Your task to perform on an android device: Open calendar and show me the second week of next month Image 0: 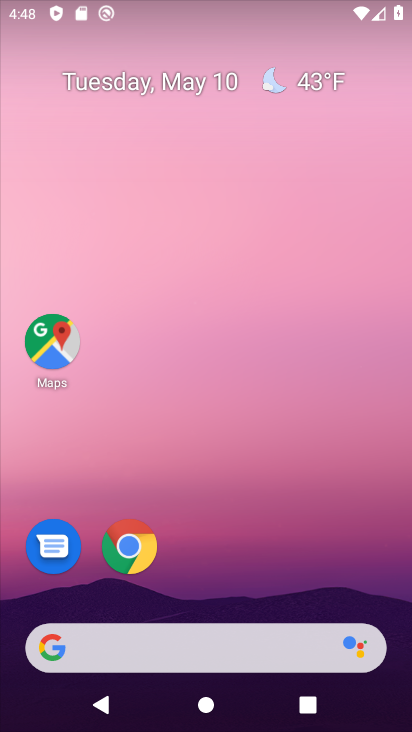
Step 0: click (171, 83)
Your task to perform on an android device: Open calendar and show me the second week of next month Image 1: 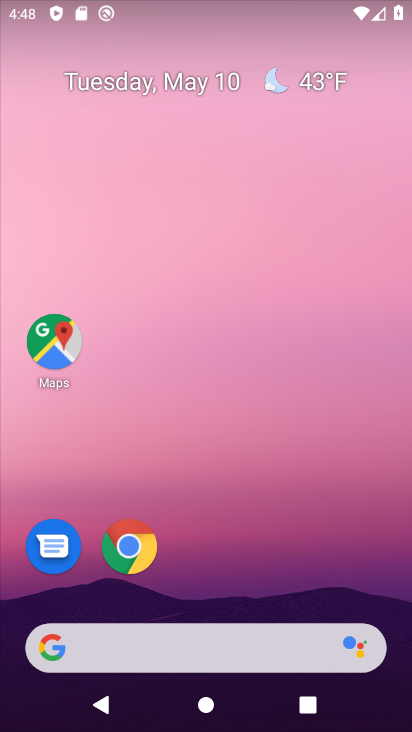
Step 1: drag from (238, 546) to (182, 128)
Your task to perform on an android device: Open calendar and show me the second week of next month Image 2: 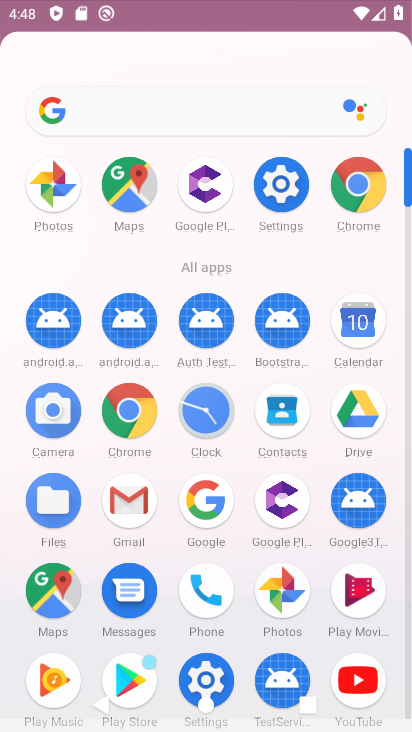
Step 2: drag from (198, 403) to (162, 25)
Your task to perform on an android device: Open calendar and show me the second week of next month Image 3: 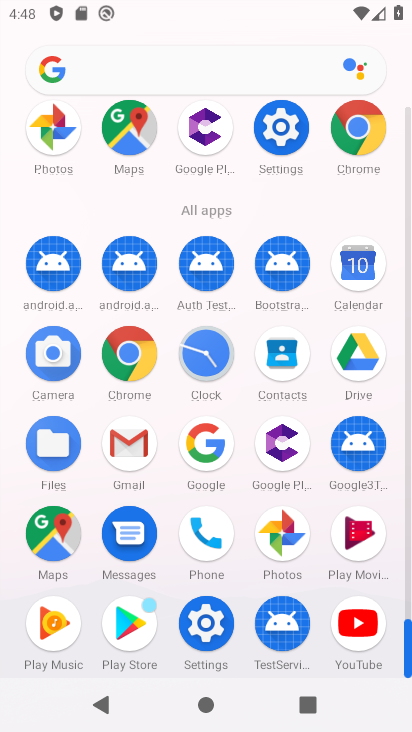
Step 3: click (366, 276)
Your task to perform on an android device: Open calendar and show me the second week of next month Image 4: 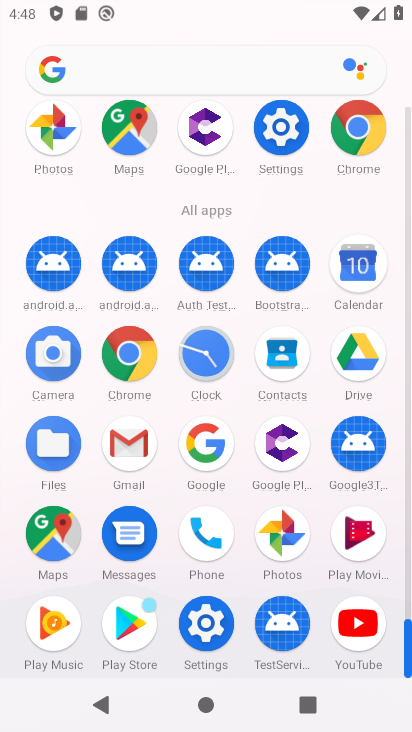
Step 4: click (359, 263)
Your task to perform on an android device: Open calendar and show me the second week of next month Image 5: 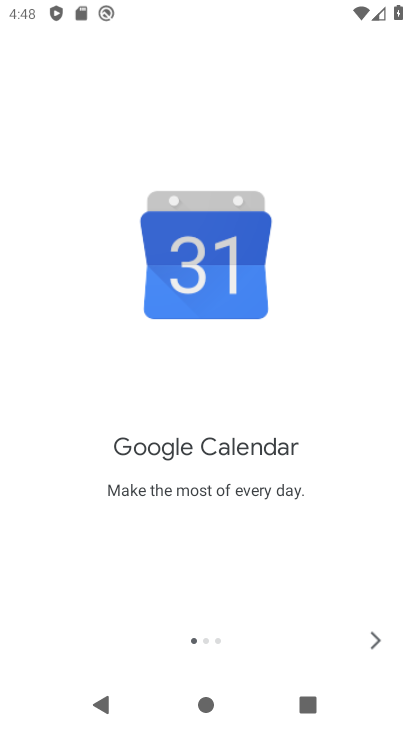
Step 5: click (378, 640)
Your task to perform on an android device: Open calendar and show me the second week of next month Image 6: 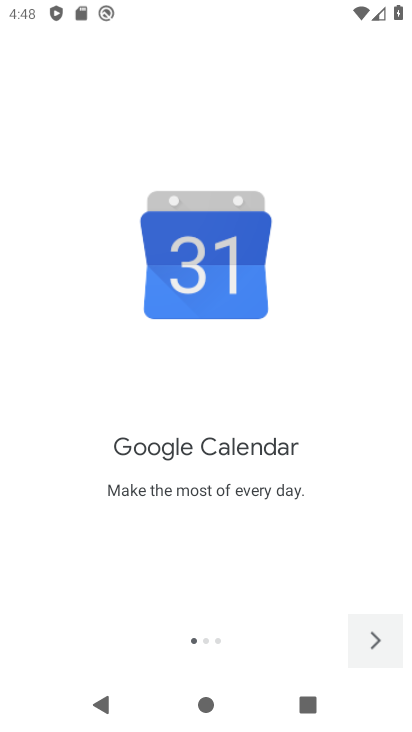
Step 6: click (375, 638)
Your task to perform on an android device: Open calendar and show me the second week of next month Image 7: 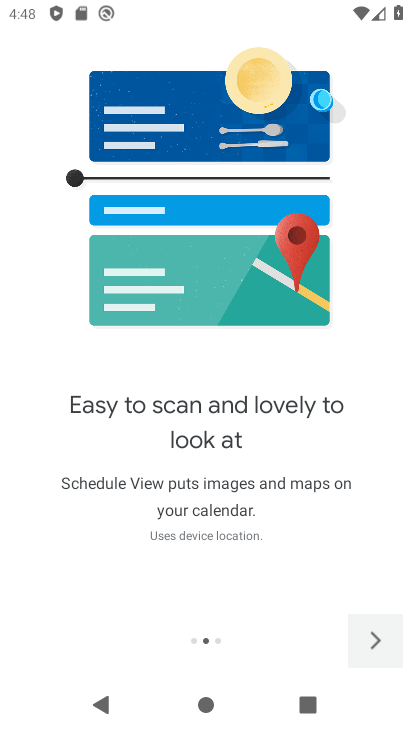
Step 7: click (374, 637)
Your task to perform on an android device: Open calendar and show me the second week of next month Image 8: 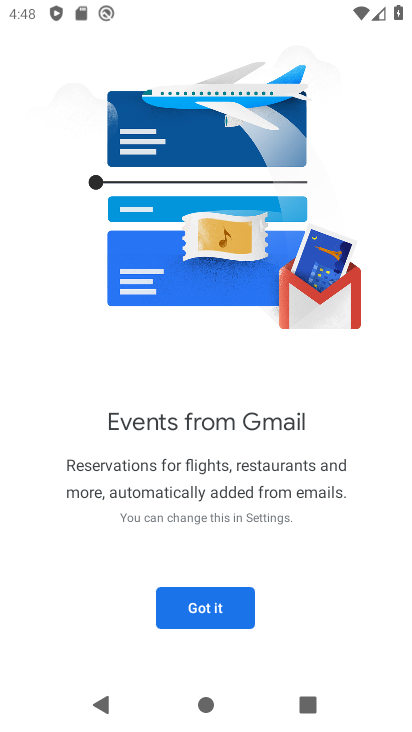
Step 8: click (380, 639)
Your task to perform on an android device: Open calendar and show me the second week of next month Image 9: 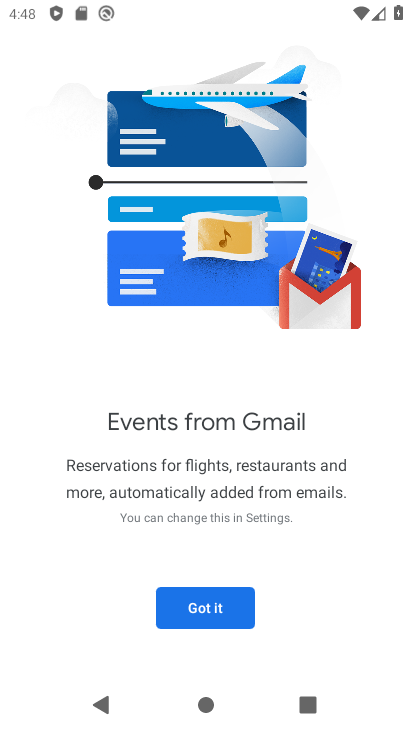
Step 9: click (380, 639)
Your task to perform on an android device: Open calendar and show me the second week of next month Image 10: 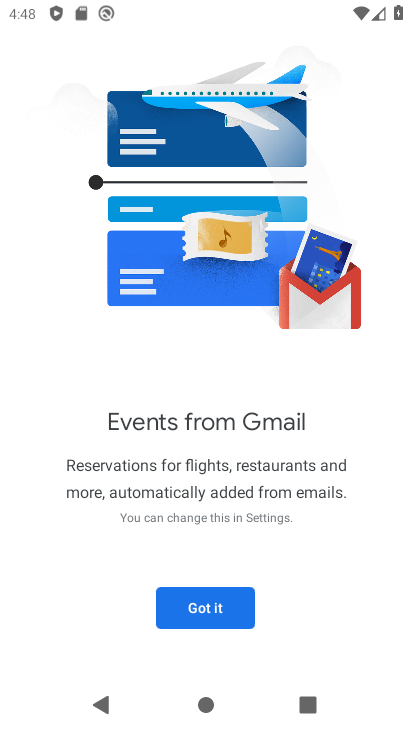
Step 10: click (198, 605)
Your task to perform on an android device: Open calendar and show me the second week of next month Image 11: 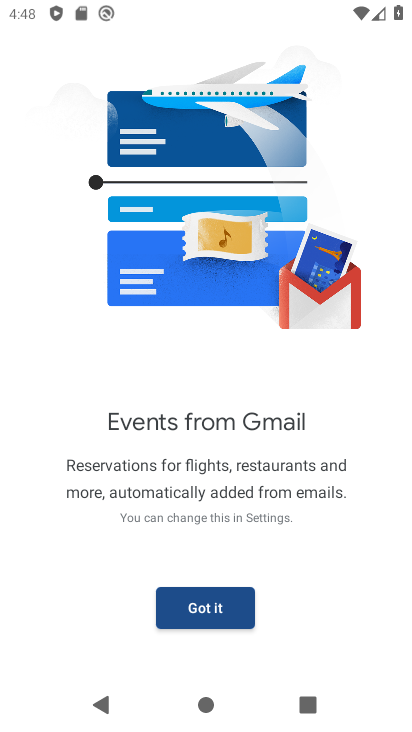
Step 11: click (195, 602)
Your task to perform on an android device: Open calendar and show me the second week of next month Image 12: 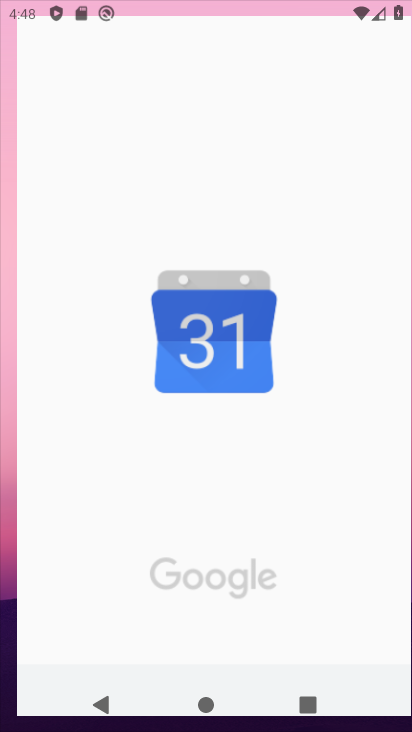
Step 12: click (200, 601)
Your task to perform on an android device: Open calendar and show me the second week of next month Image 13: 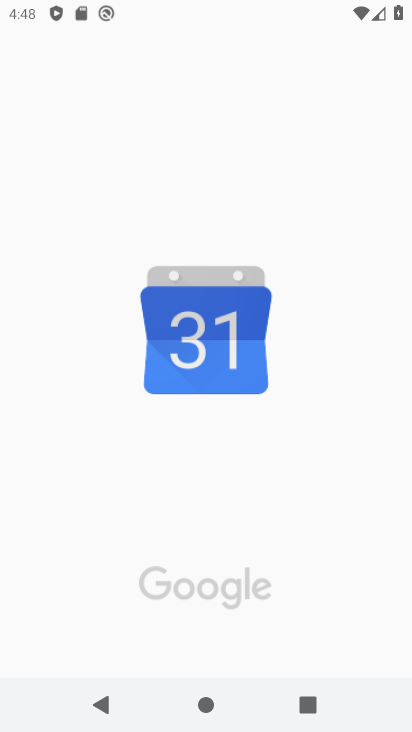
Step 13: click (205, 604)
Your task to perform on an android device: Open calendar and show me the second week of next month Image 14: 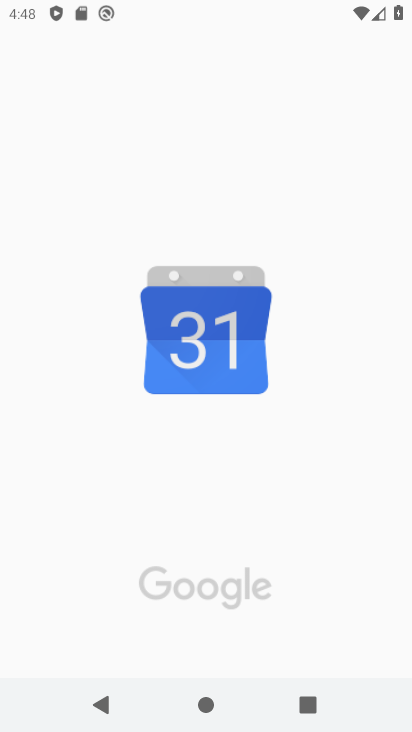
Step 14: click (211, 603)
Your task to perform on an android device: Open calendar and show me the second week of next month Image 15: 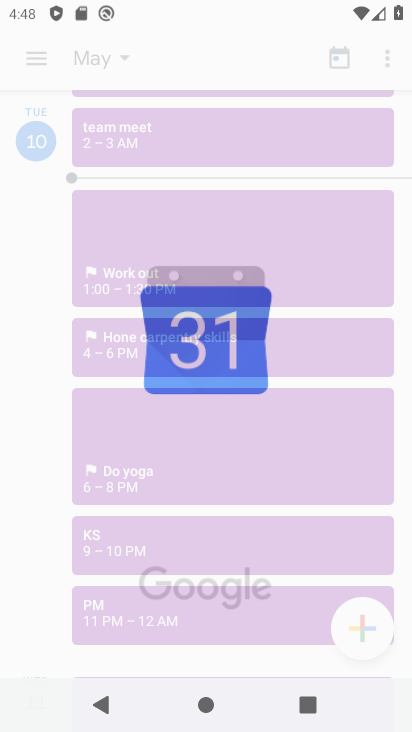
Step 15: click (213, 604)
Your task to perform on an android device: Open calendar and show me the second week of next month Image 16: 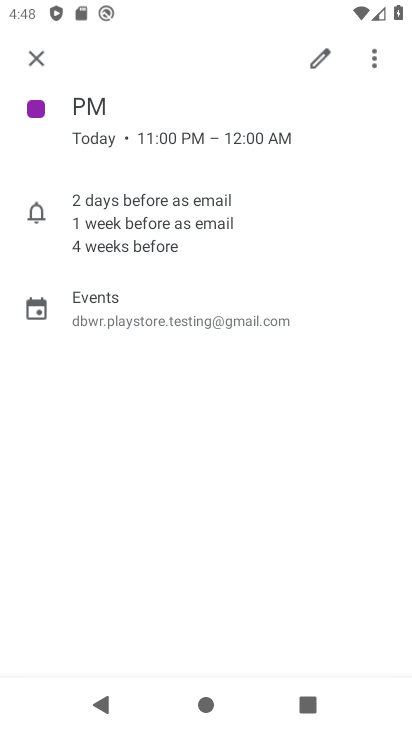
Step 16: click (27, 59)
Your task to perform on an android device: Open calendar and show me the second week of next month Image 17: 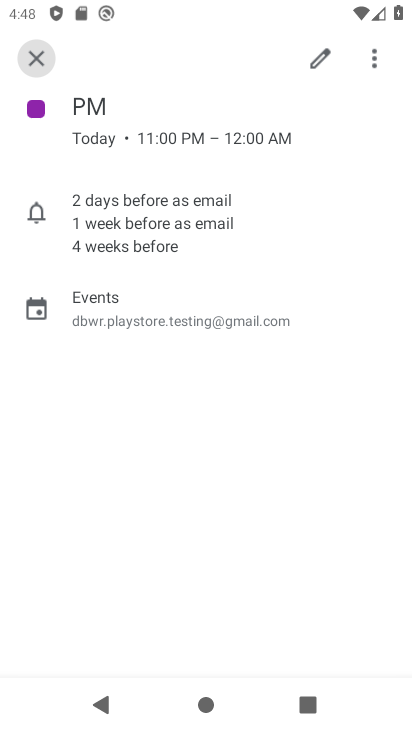
Step 17: click (27, 59)
Your task to perform on an android device: Open calendar and show me the second week of next month Image 18: 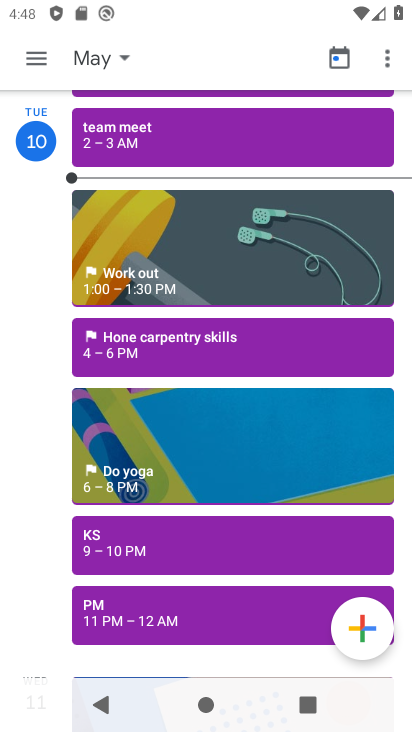
Step 18: click (127, 53)
Your task to perform on an android device: Open calendar and show me the second week of next month Image 19: 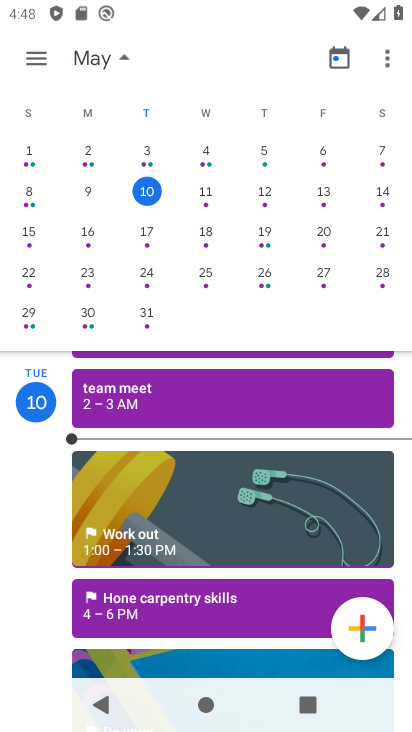
Step 19: drag from (248, 242) to (30, 213)
Your task to perform on an android device: Open calendar and show me the second week of next month Image 20: 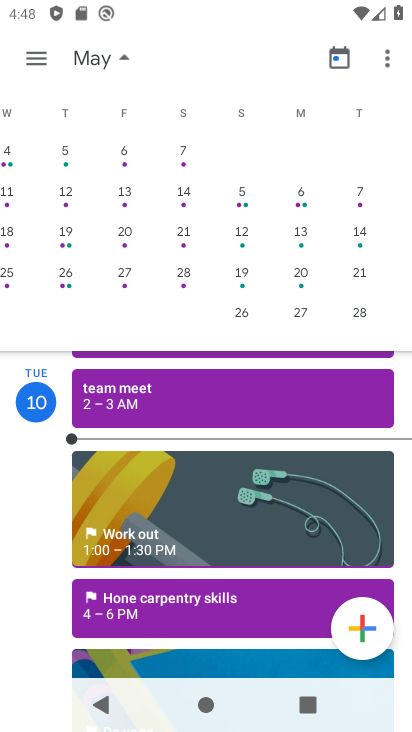
Step 20: drag from (226, 218) to (14, 254)
Your task to perform on an android device: Open calendar and show me the second week of next month Image 21: 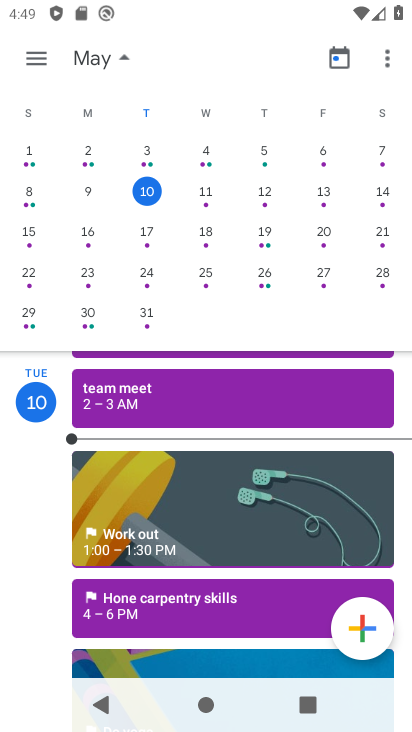
Step 21: drag from (159, 234) to (12, 275)
Your task to perform on an android device: Open calendar and show me the second week of next month Image 22: 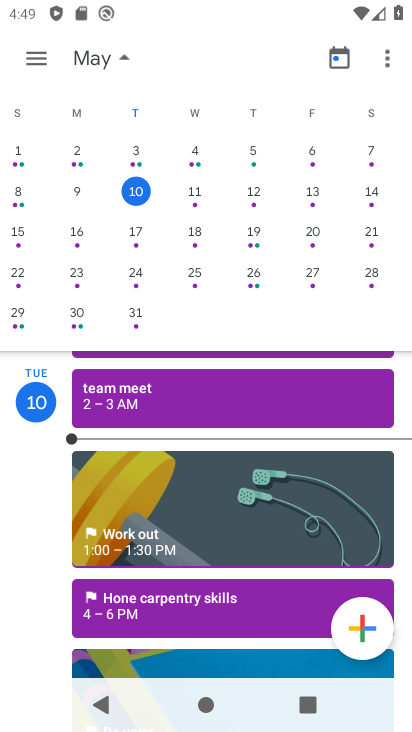
Step 22: drag from (198, 257) to (7, 245)
Your task to perform on an android device: Open calendar and show me the second week of next month Image 23: 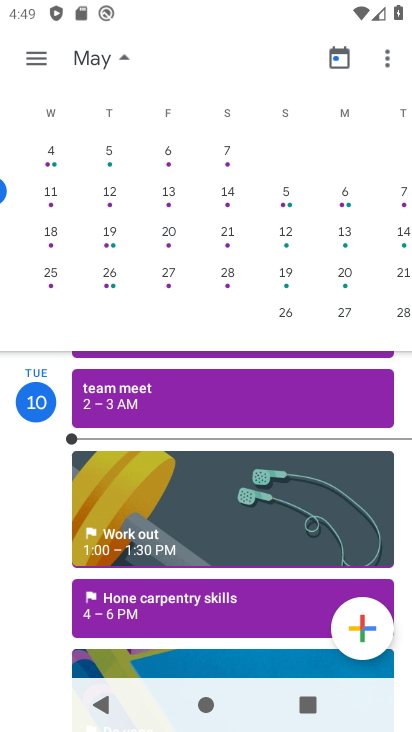
Step 23: drag from (229, 227) to (6, 264)
Your task to perform on an android device: Open calendar and show me the second week of next month Image 24: 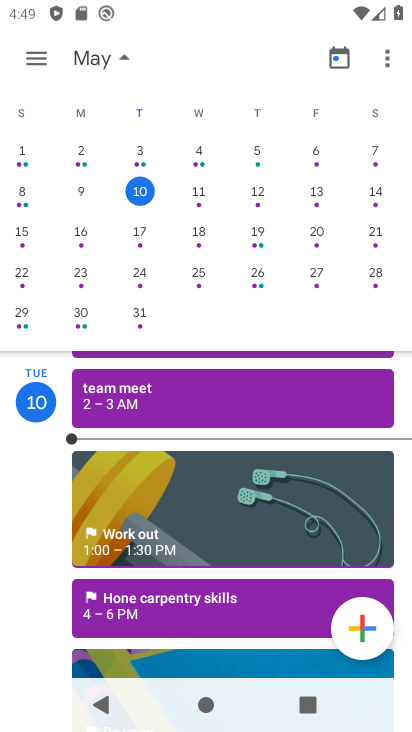
Step 24: click (60, 229)
Your task to perform on an android device: Open calendar and show me the second week of next month Image 25: 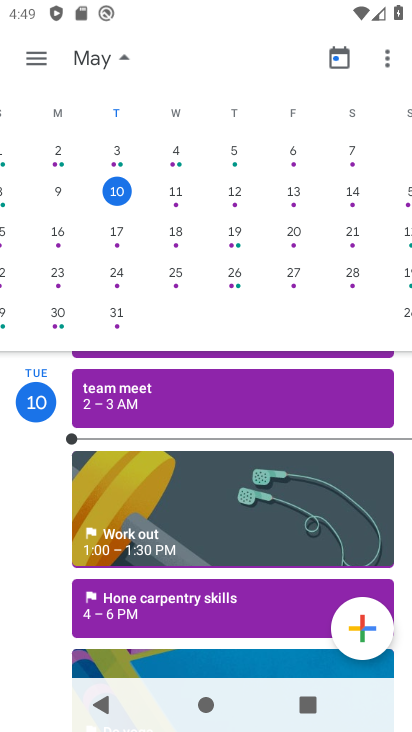
Step 25: task complete